Your task to perform on an android device: Open Yahoo.com Image 0: 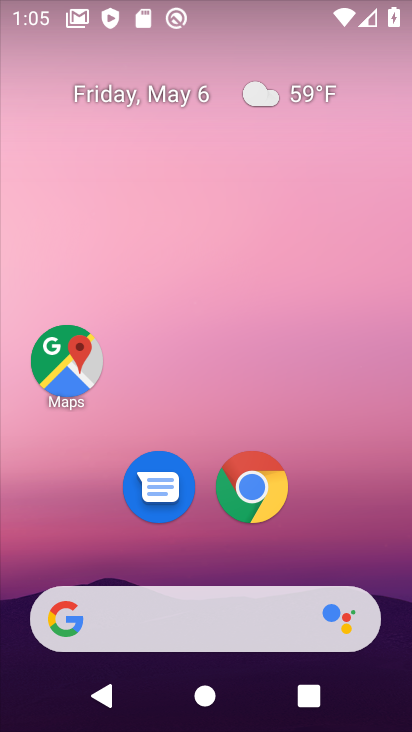
Step 0: drag from (234, 615) to (268, 266)
Your task to perform on an android device: Open Yahoo.com Image 1: 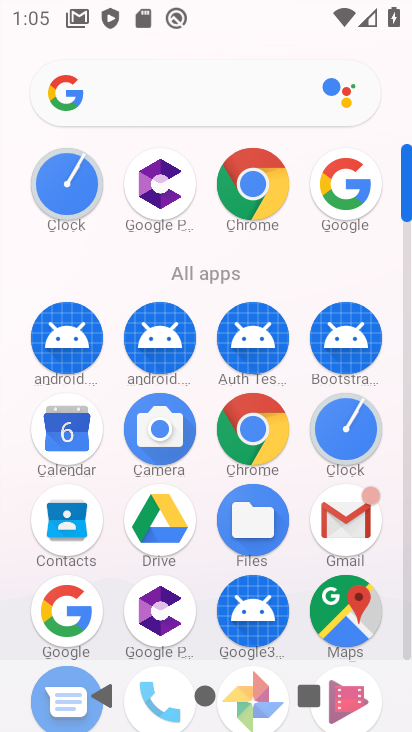
Step 1: click (259, 208)
Your task to perform on an android device: Open Yahoo.com Image 2: 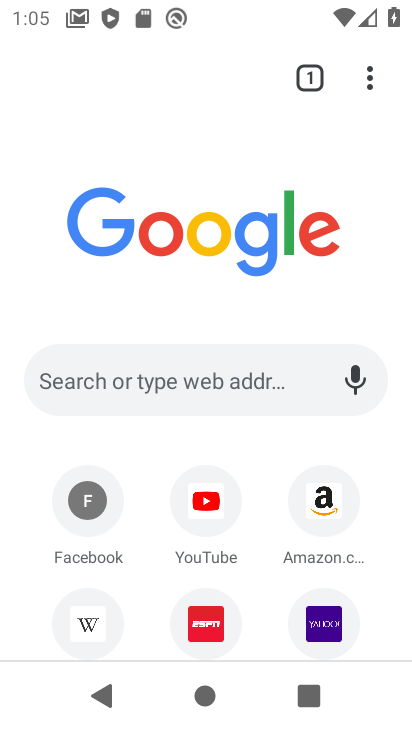
Step 2: click (158, 372)
Your task to perform on an android device: Open Yahoo.com Image 3: 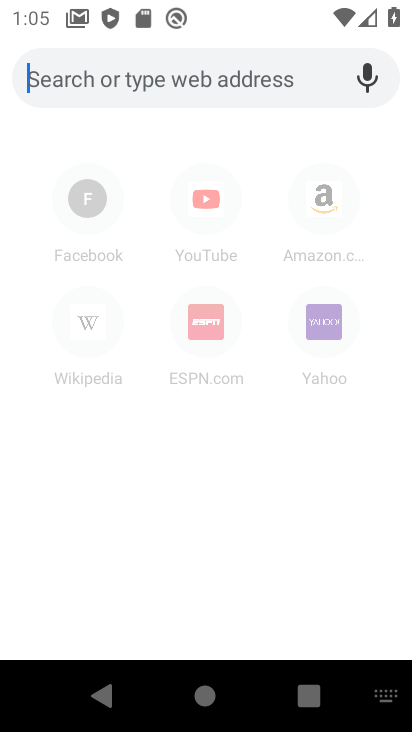
Step 3: click (206, 427)
Your task to perform on an android device: Open Yahoo.com Image 4: 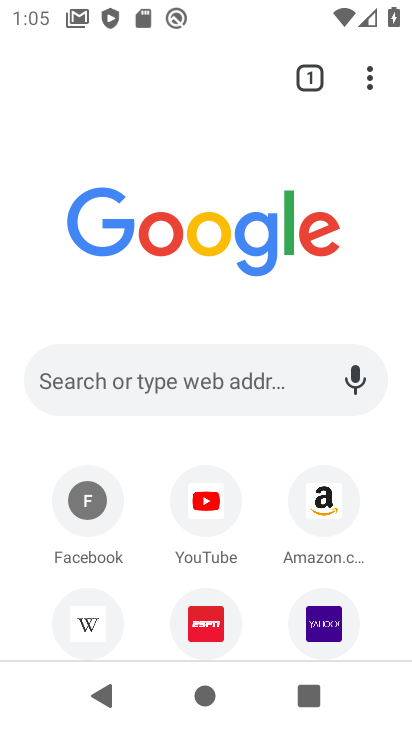
Step 4: click (305, 627)
Your task to perform on an android device: Open Yahoo.com Image 5: 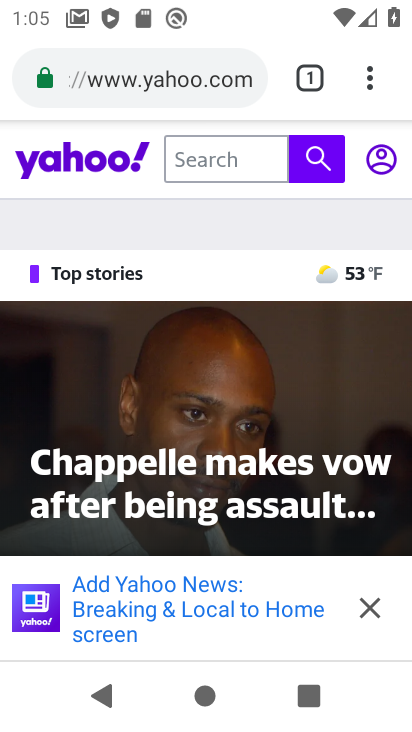
Step 5: task complete